Your task to perform on an android device: Is it going to rain tomorrow? Image 0: 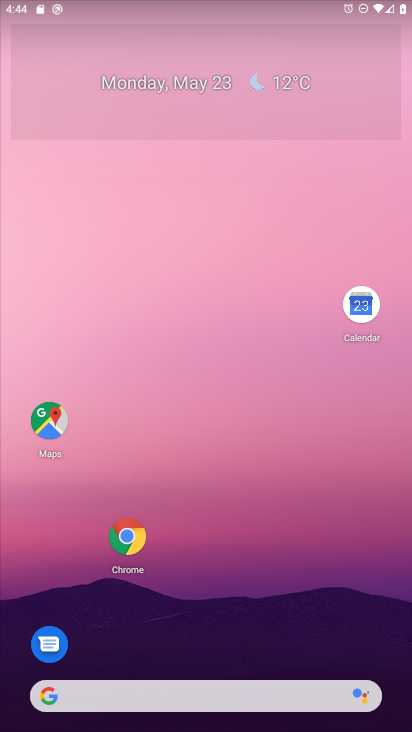
Step 0: drag from (290, 617) to (282, 222)
Your task to perform on an android device: Is it going to rain tomorrow? Image 1: 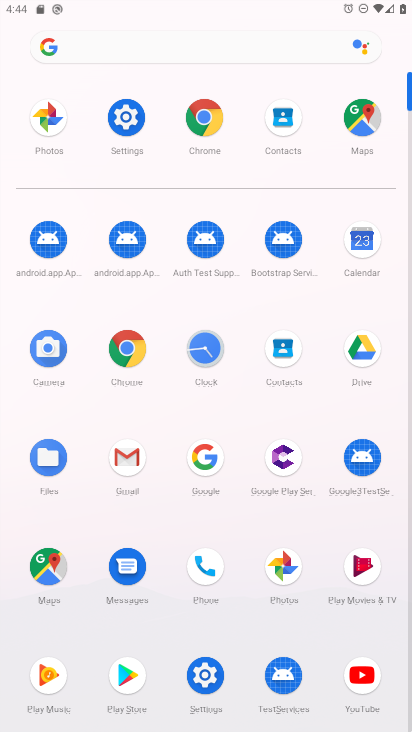
Step 1: press home button
Your task to perform on an android device: Is it going to rain tomorrow? Image 2: 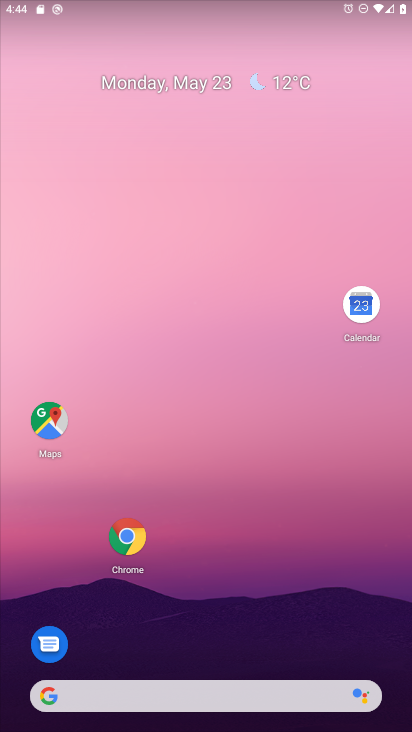
Step 2: click (284, 84)
Your task to perform on an android device: Is it going to rain tomorrow? Image 3: 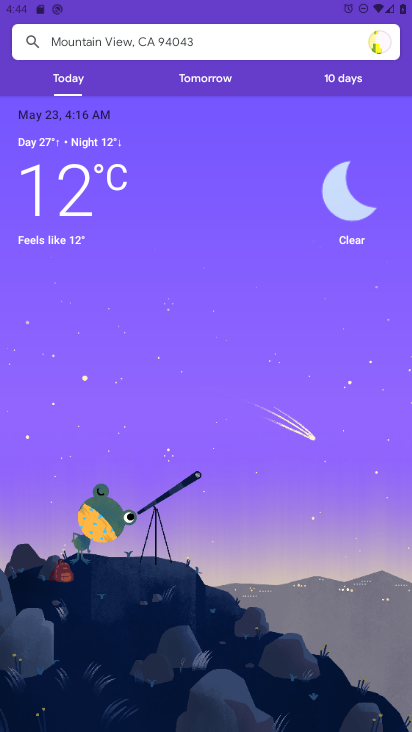
Step 3: click (222, 82)
Your task to perform on an android device: Is it going to rain tomorrow? Image 4: 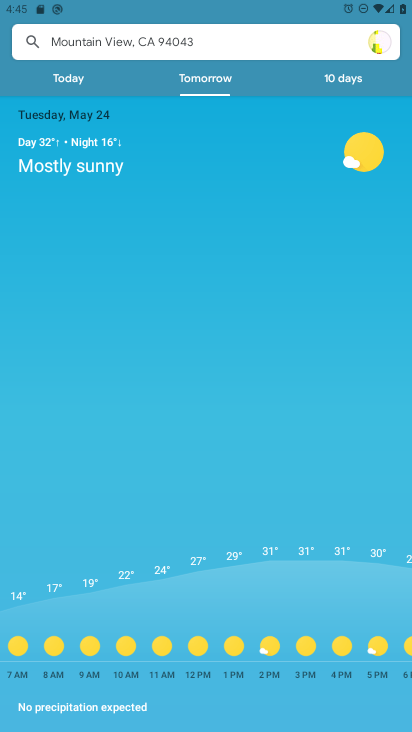
Step 4: task complete